Your task to perform on an android device: Open Youtube and go to "Your channel" Image 0: 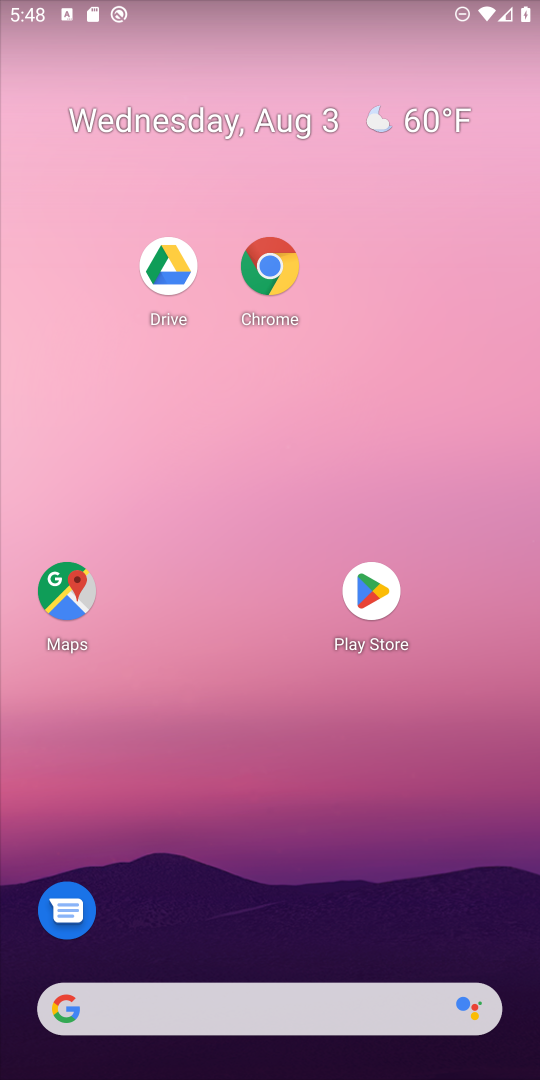
Step 0: drag from (378, 943) to (539, 936)
Your task to perform on an android device: Open Youtube and go to "Your channel" Image 1: 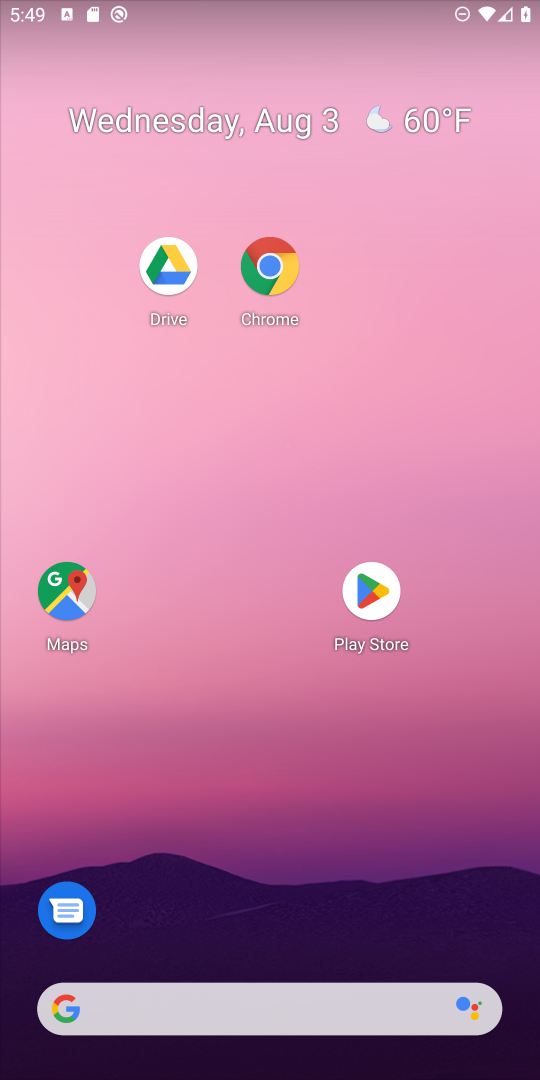
Step 1: click (474, 954)
Your task to perform on an android device: Open Youtube and go to "Your channel" Image 2: 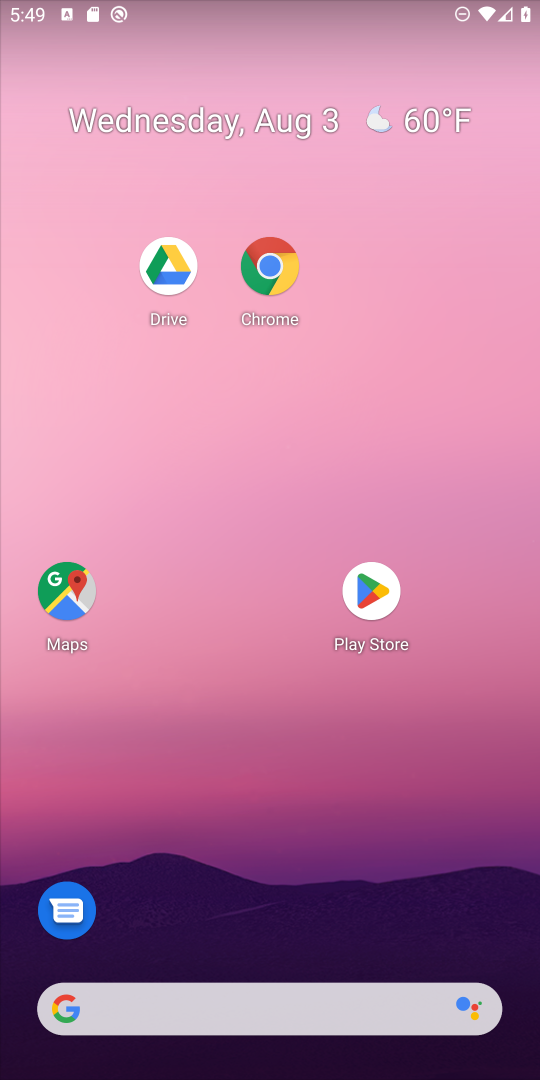
Step 2: drag from (320, 1022) to (398, 0)
Your task to perform on an android device: Open Youtube and go to "Your channel" Image 3: 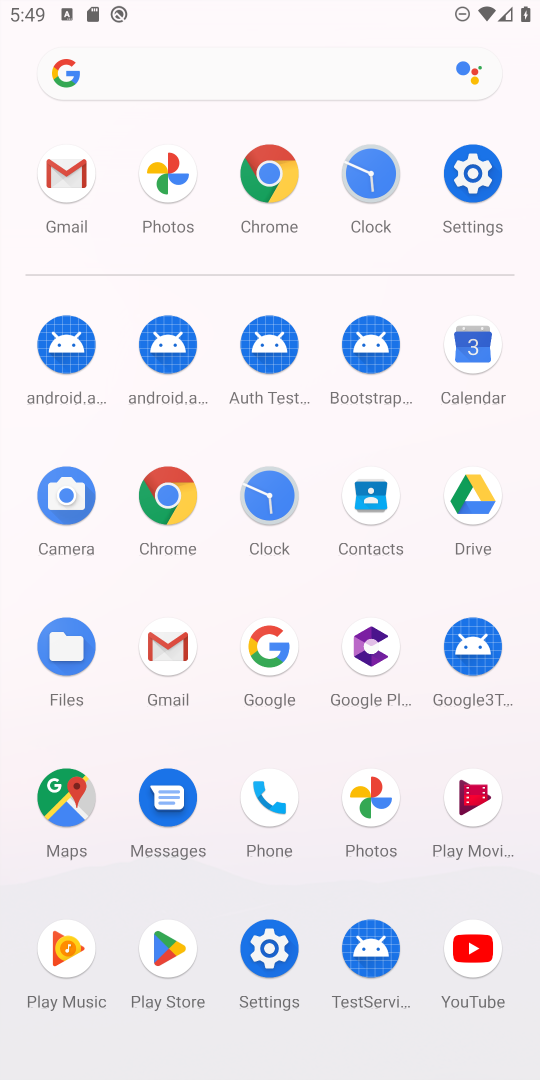
Step 3: click (457, 954)
Your task to perform on an android device: Open Youtube and go to "Your channel" Image 4: 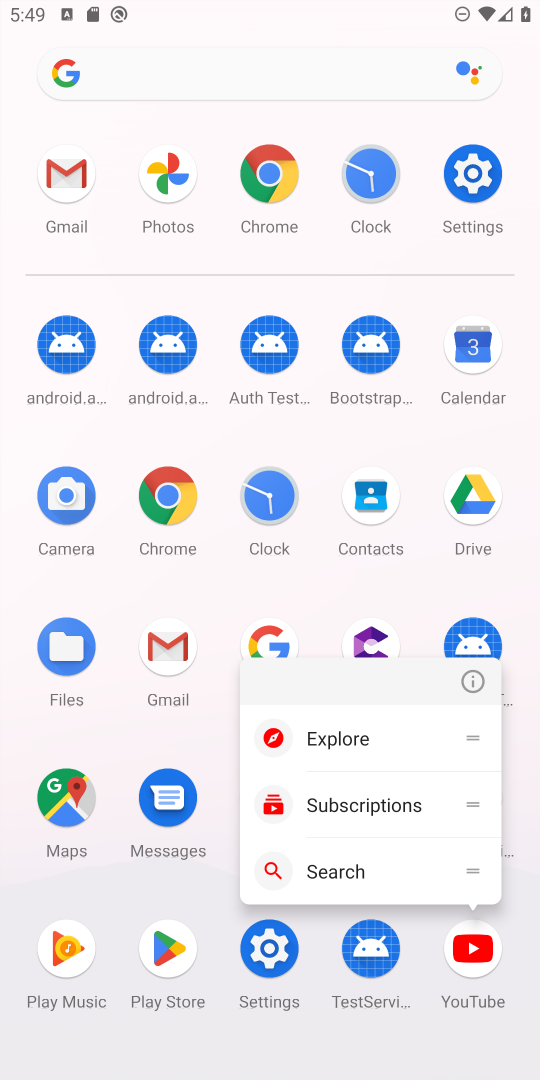
Step 4: click (459, 940)
Your task to perform on an android device: Open Youtube and go to "Your channel" Image 5: 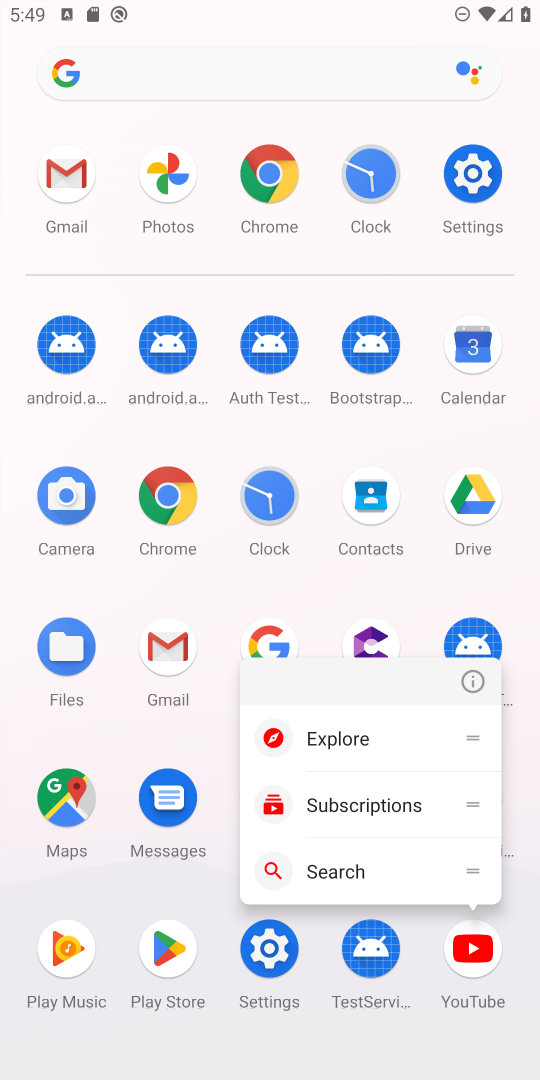
Step 5: click (459, 940)
Your task to perform on an android device: Open Youtube and go to "Your channel" Image 6: 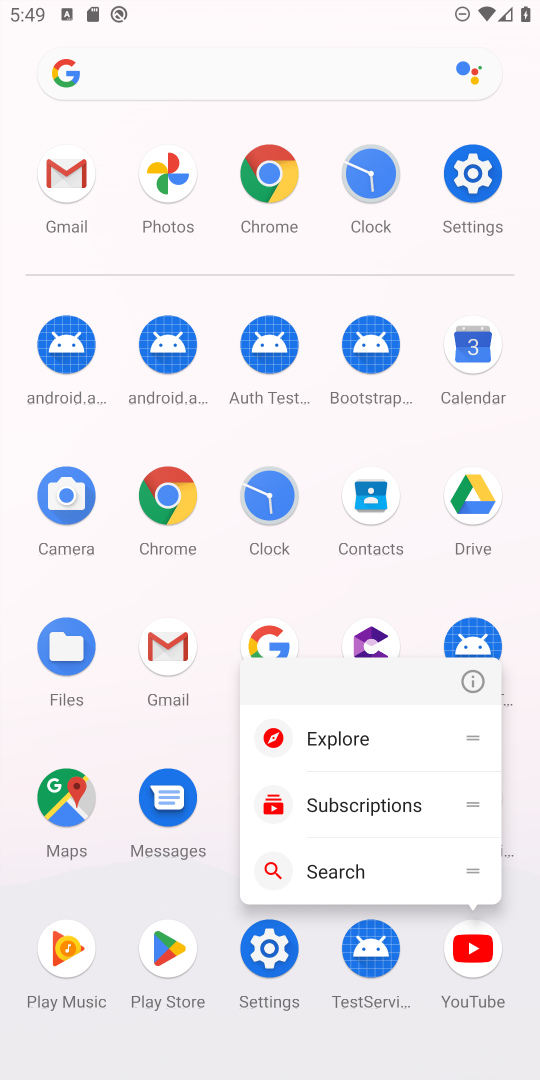
Step 6: click (461, 938)
Your task to perform on an android device: Open Youtube and go to "Your channel" Image 7: 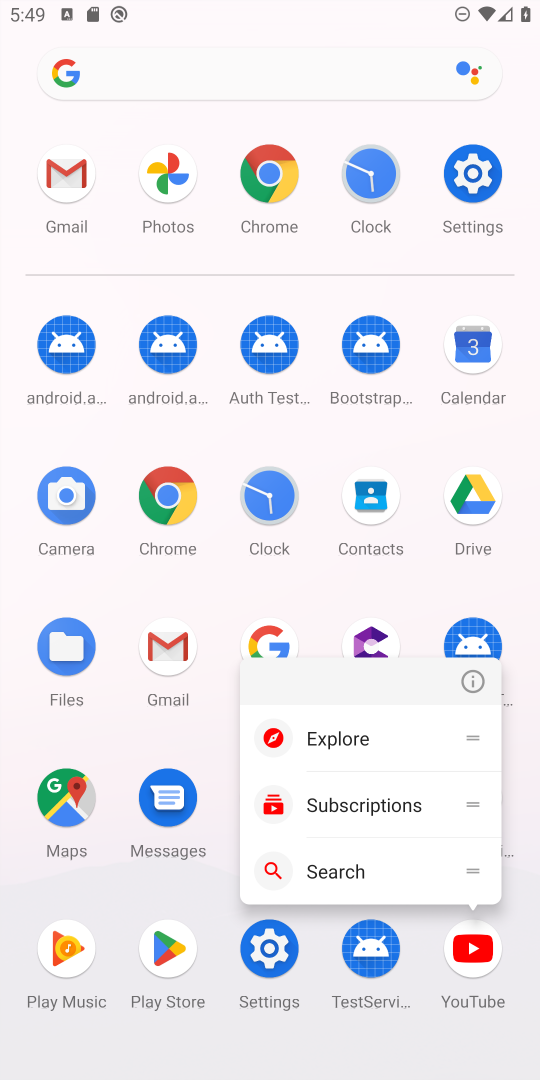
Step 7: click (476, 956)
Your task to perform on an android device: Open Youtube and go to "Your channel" Image 8: 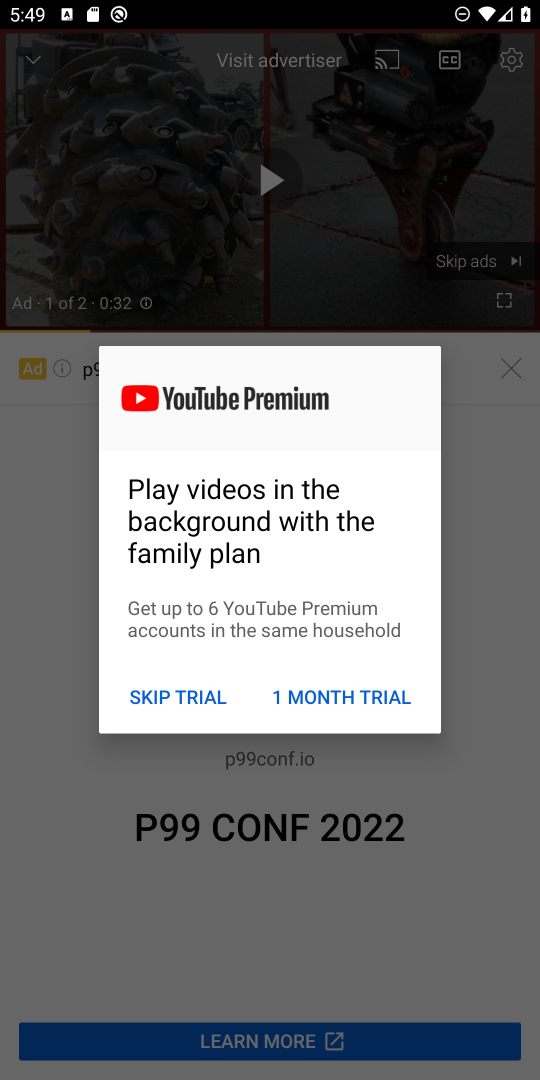
Step 8: click (356, 905)
Your task to perform on an android device: Open Youtube and go to "Your channel" Image 9: 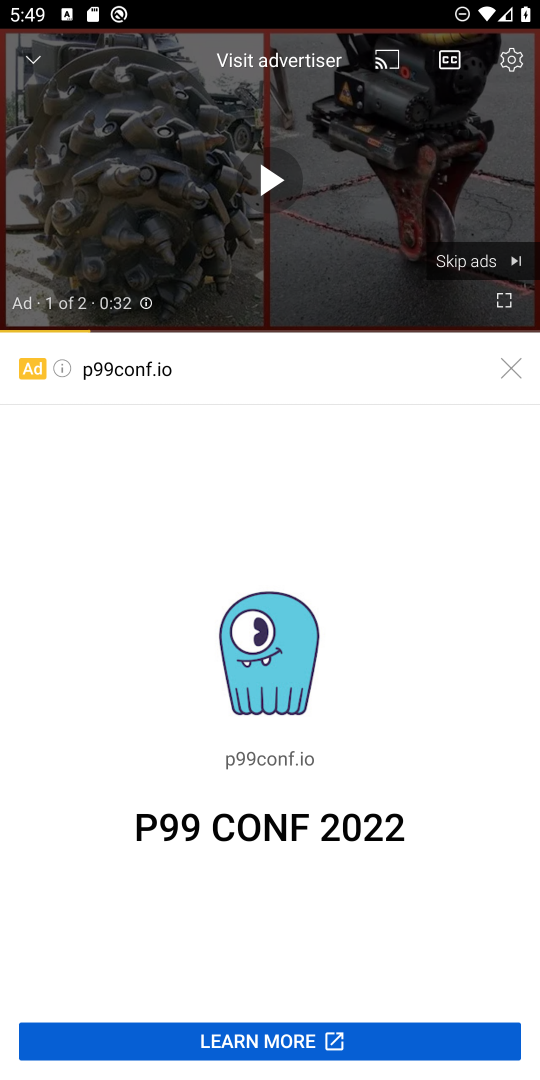
Step 9: press back button
Your task to perform on an android device: Open Youtube and go to "Your channel" Image 10: 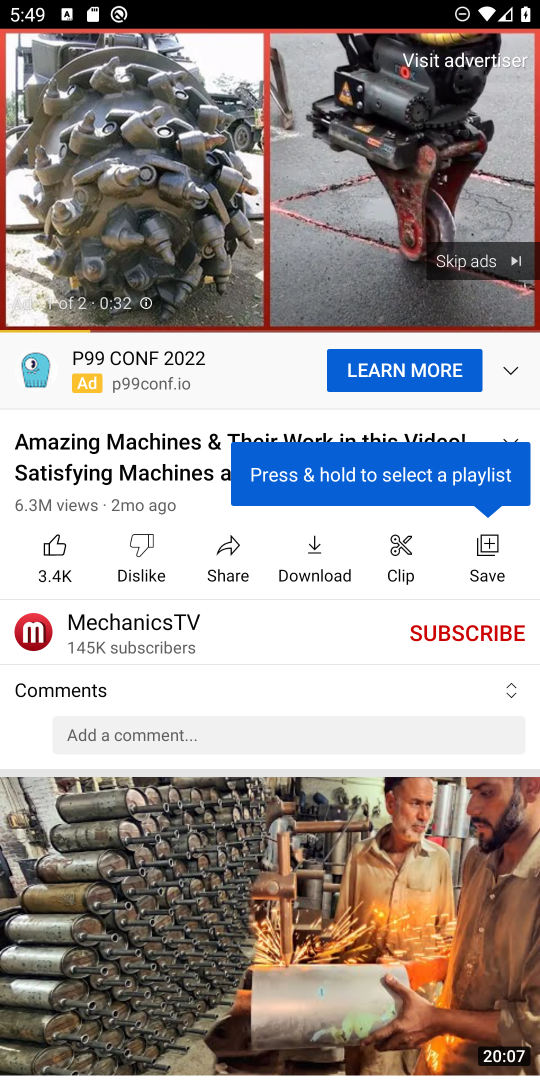
Step 10: press back button
Your task to perform on an android device: Open Youtube and go to "Your channel" Image 11: 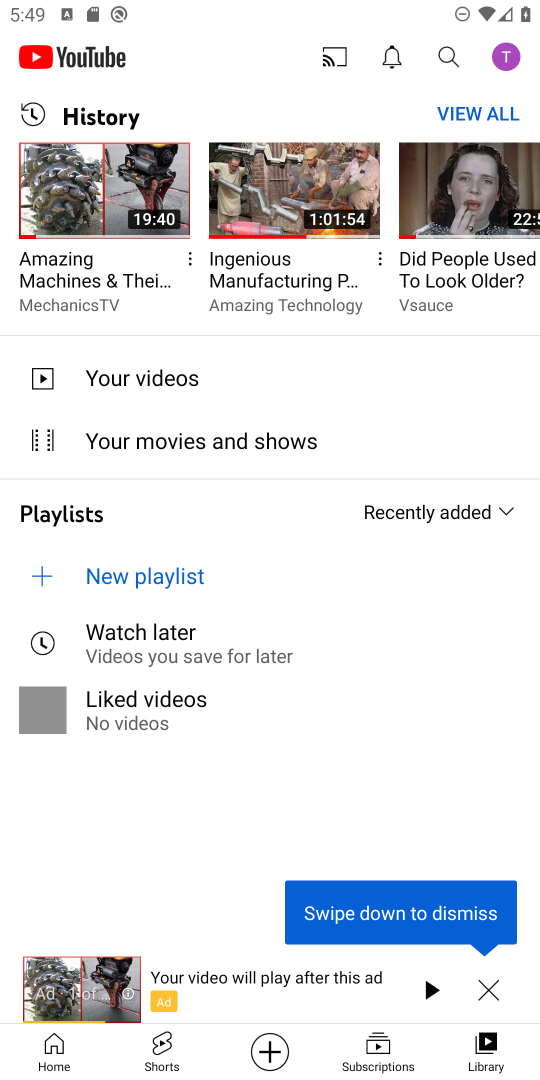
Step 11: click (514, 57)
Your task to perform on an android device: Open Youtube and go to "Your channel" Image 12: 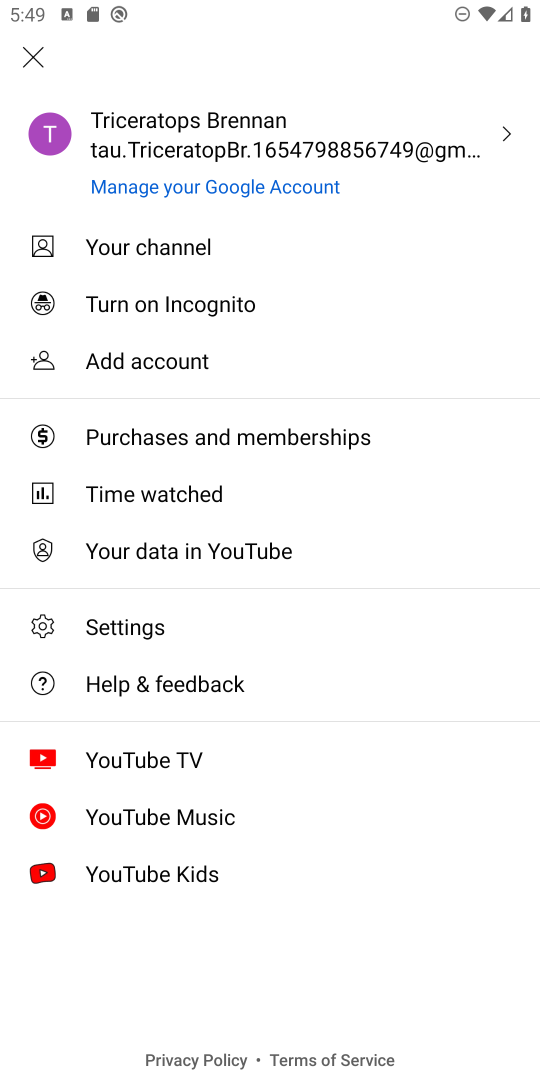
Step 12: click (221, 242)
Your task to perform on an android device: Open Youtube and go to "Your channel" Image 13: 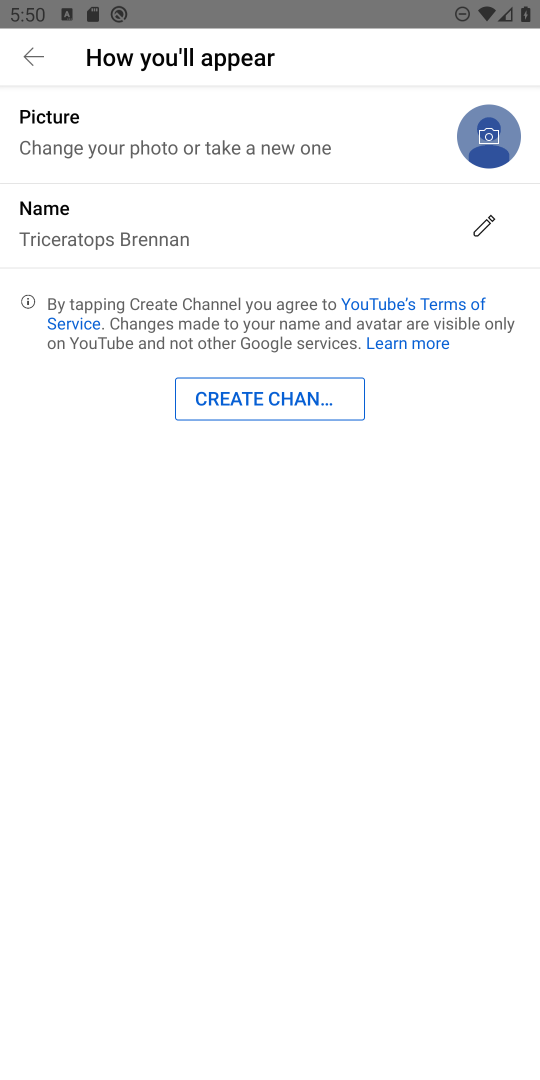
Step 13: task complete